Your task to perform on an android device: create a new album in the google photos Image 0: 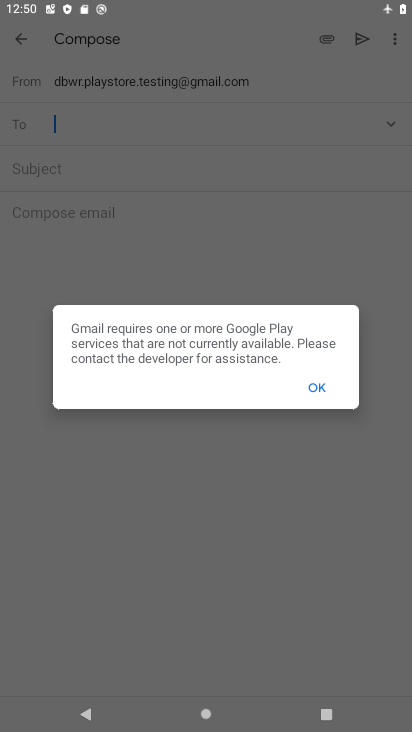
Step 0: press home button
Your task to perform on an android device: create a new album in the google photos Image 1: 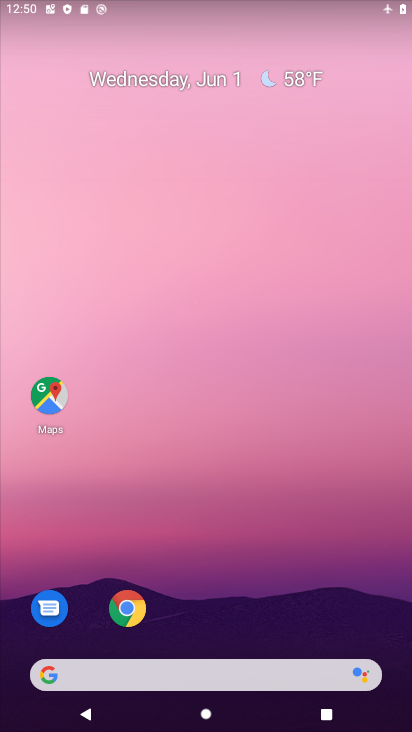
Step 1: drag from (162, 629) to (190, 151)
Your task to perform on an android device: create a new album in the google photos Image 2: 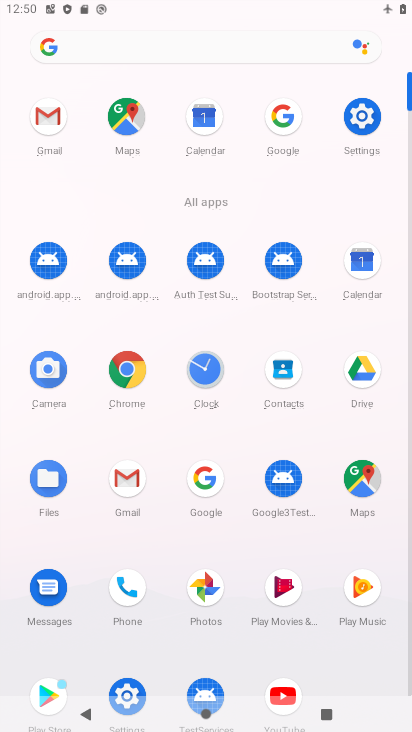
Step 2: click (201, 595)
Your task to perform on an android device: create a new album in the google photos Image 3: 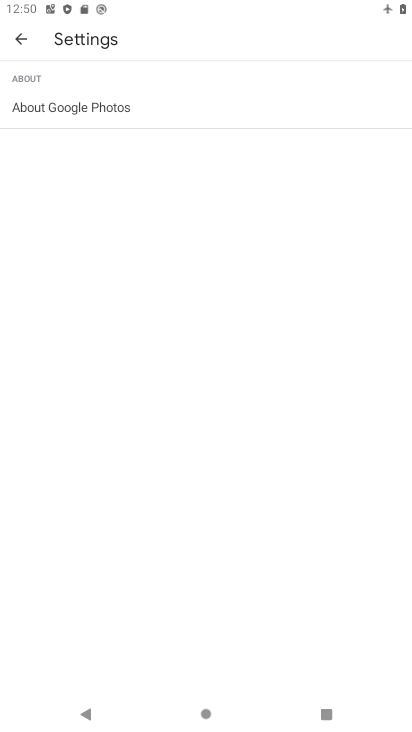
Step 3: click (19, 35)
Your task to perform on an android device: create a new album in the google photos Image 4: 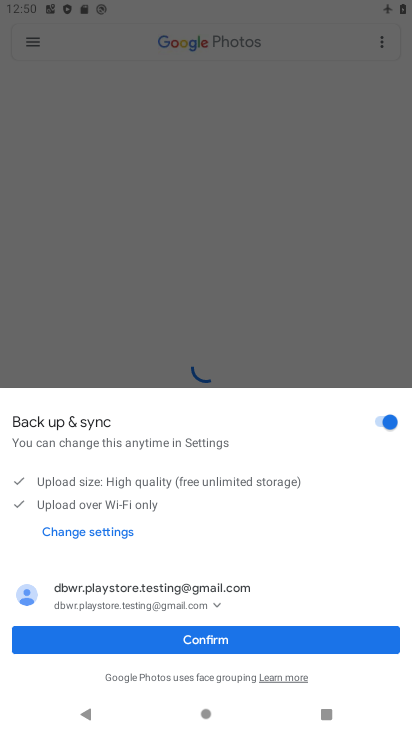
Step 4: click (252, 639)
Your task to perform on an android device: create a new album in the google photos Image 5: 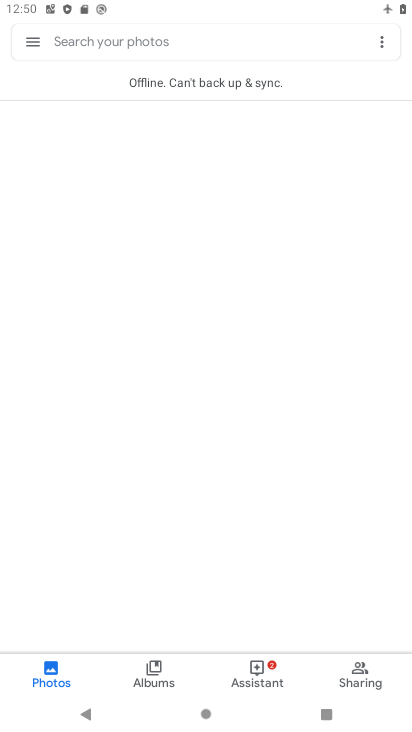
Step 5: drag from (198, 7) to (223, 654)
Your task to perform on an android device: create a new album in the google photos Image 6: 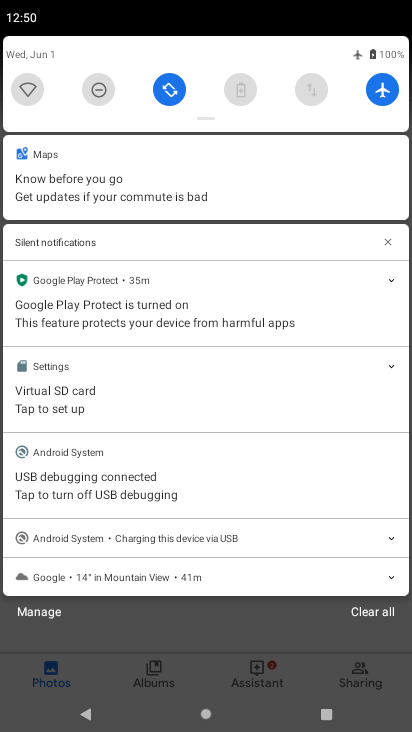
Step 6: click (386, 72)
Your task to perform on an android device: create a new album in the google photos Image 7: 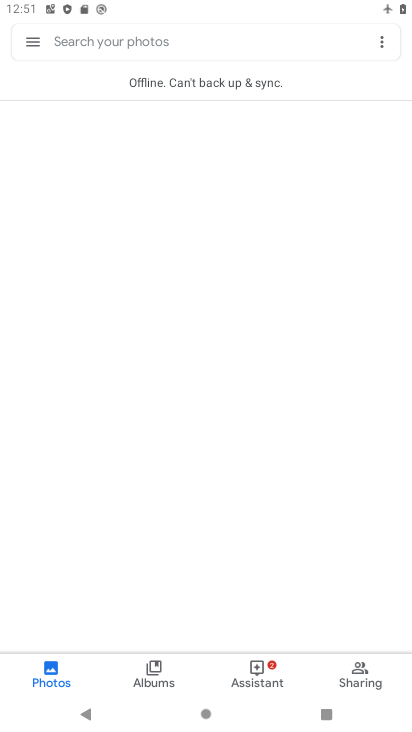
Step 7: drag from (277, 26) to (348, 560)
Your task to perform on an android device: create a new album in the google photos Image 8: 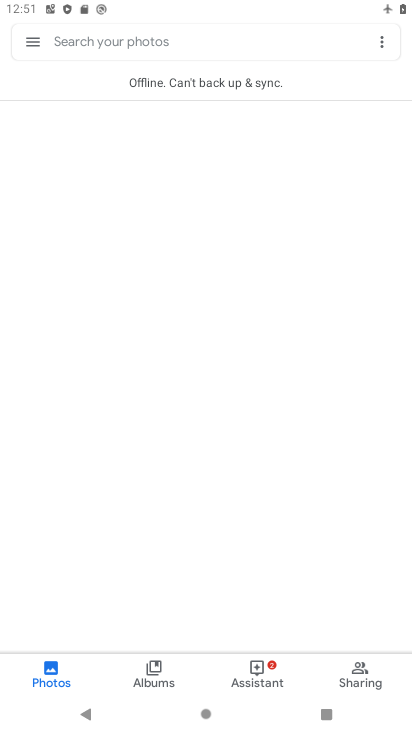
Step 8: drag from (201, 28) to (259, 493)
Your task to perform on an android device: create a new album in the google photos Image 9: 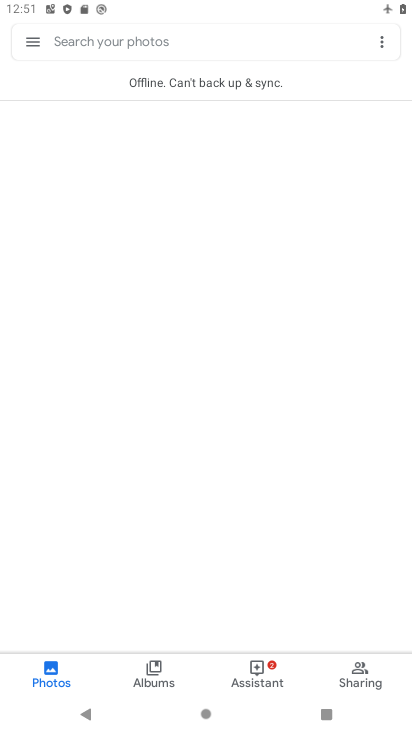
Step 9: drag from (257, 10) to (264, 495)
Your task to perform on an android device: create a new album in the google photos Image 10: 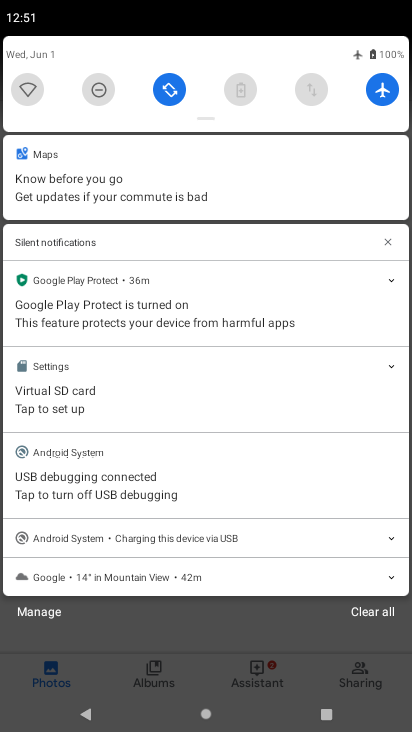
Step 10: click (370, 90)
Your task to perform on an android device: create a new album in the google photos Image 11: 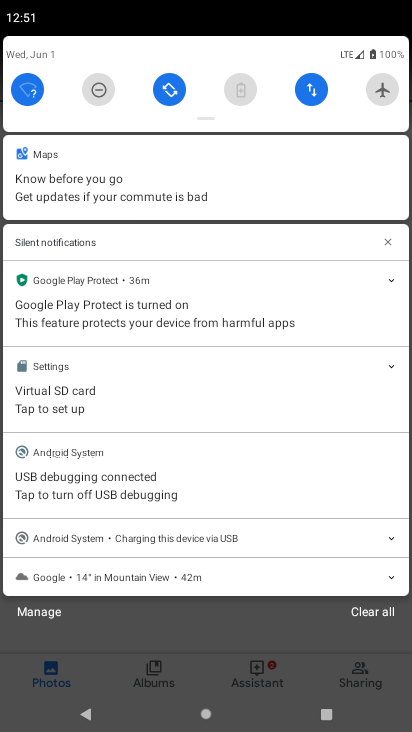
Step 11: drag from (296, 712) to (265, 181)
Your task to perform on an android device: create a new album in the google photos Image 12: 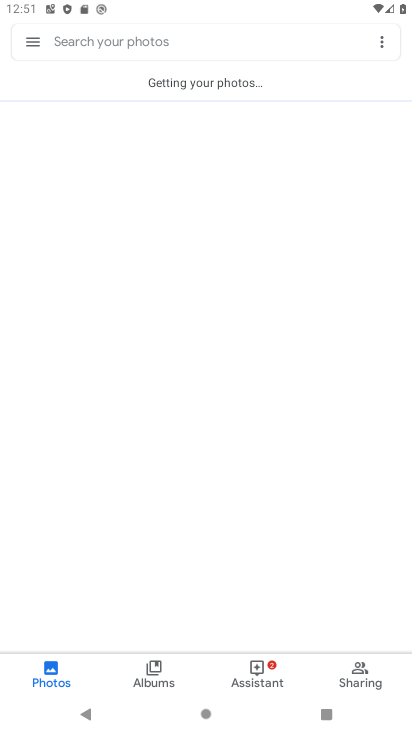
Step 12: click (199, 76)
Your task to perform on an android device: create a new album in the google photos Image 13: 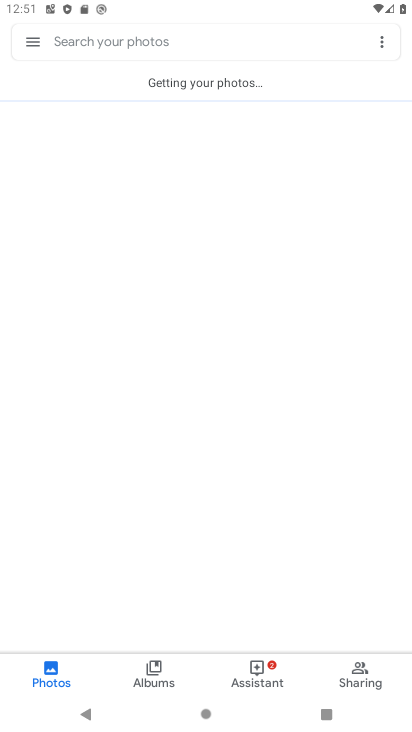
Step 13: click (139, 667)
Your task to perform on an android device: create a new album in the google photos Image 14: 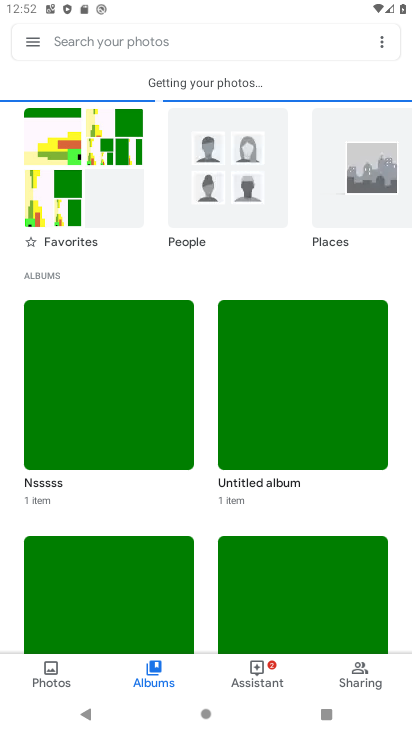
Step 14: click (120, 398)
Your task to perform on an android device: create a new album in the google photos Image 15: 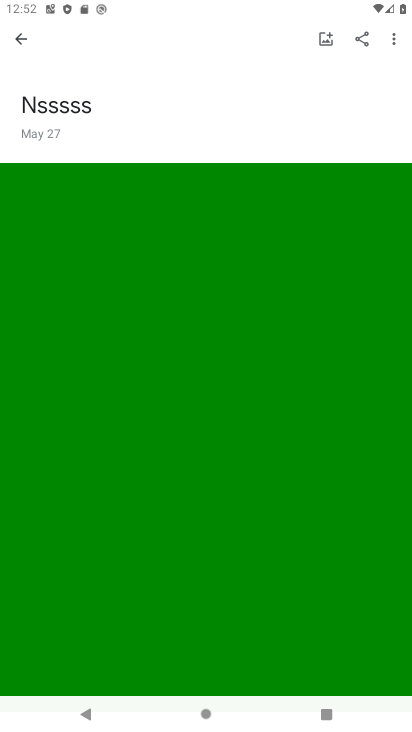
Step 15: click (389, 33)
Your task to perform on an android device: create a new album in the google photos Image 16: 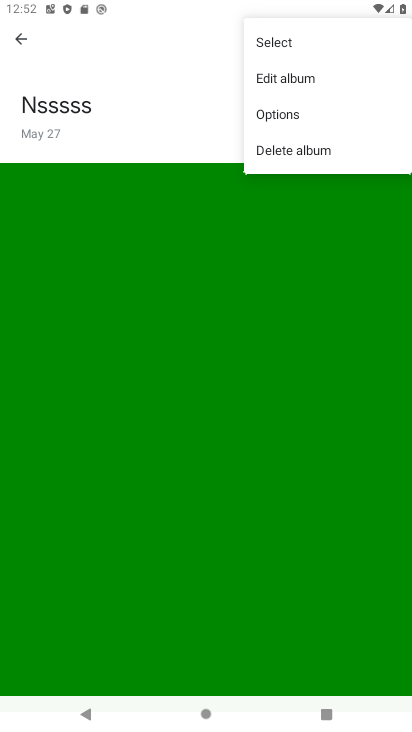
Step 16: click (131, 292)
Your task to perform on an android device: create a new album in the google photos Image 17: 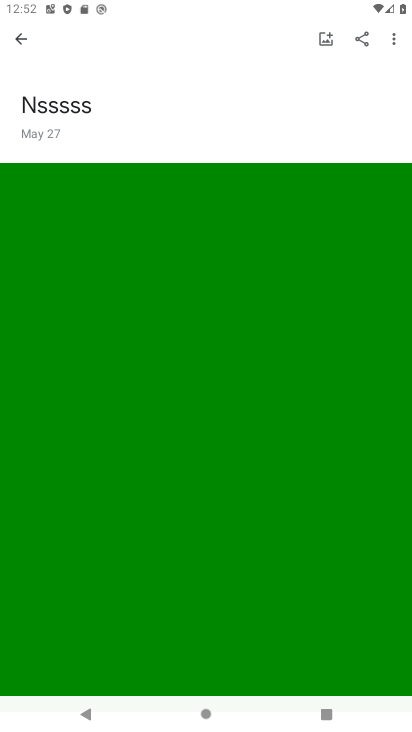
Step 17: click (389, 40)
Your task to perform on an android device: create a new album in the google photos Image 18: 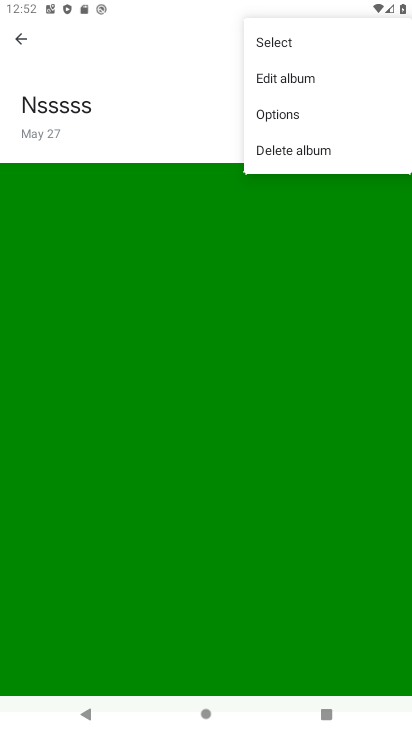
Step 18: click (339, 37)
Your task to perform on an android device: create a new album in the google photos Image 19: 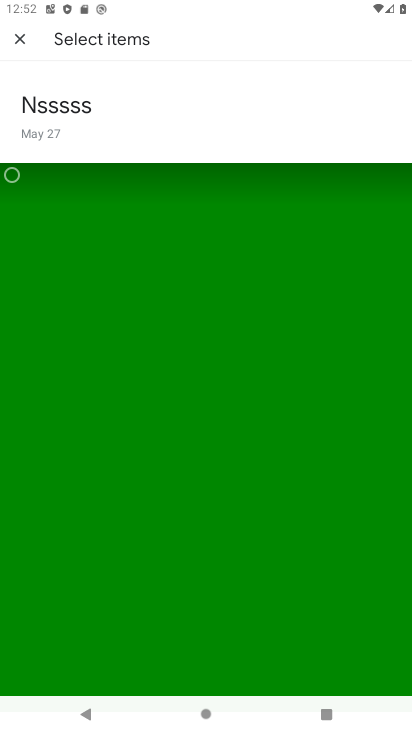
Step 19: click (57, 248)
Your task to perform on an android device: create a new album in the google photos Image 20: 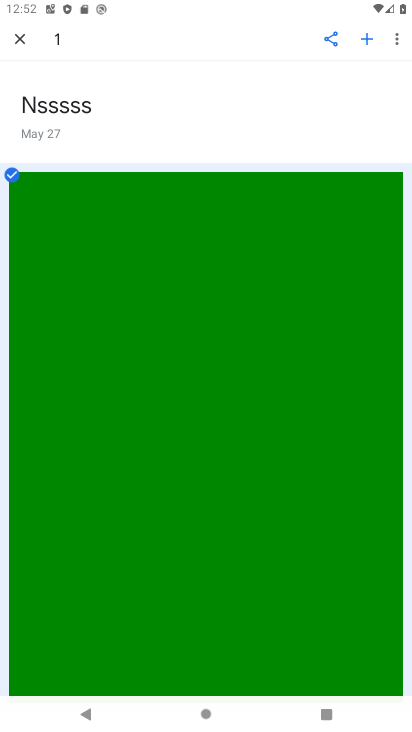
Step 20: click (359, 33)
Your task to perform on an android device: create a new album in the google photos Image 21: 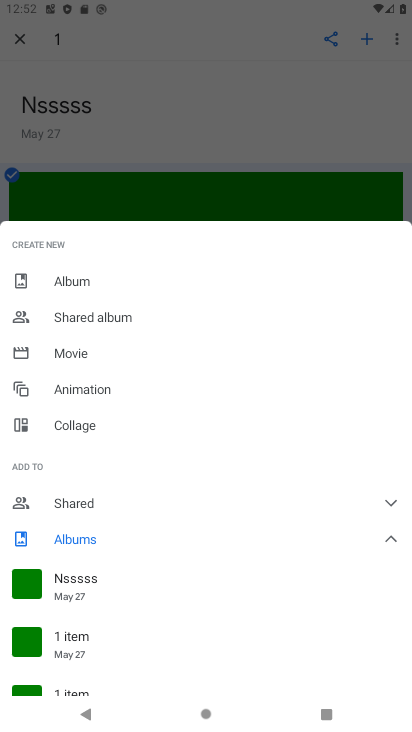
Step 21: click (58, 274)
Your task to perform on an android device: create a new album in the google photos Image 22: 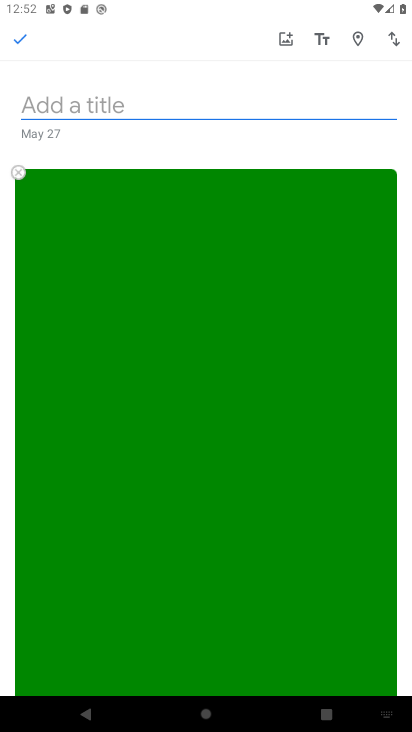
Step 22: type "thtgfdhf"
Your task to perform on an android device: create a new album in the google photos Image 23: 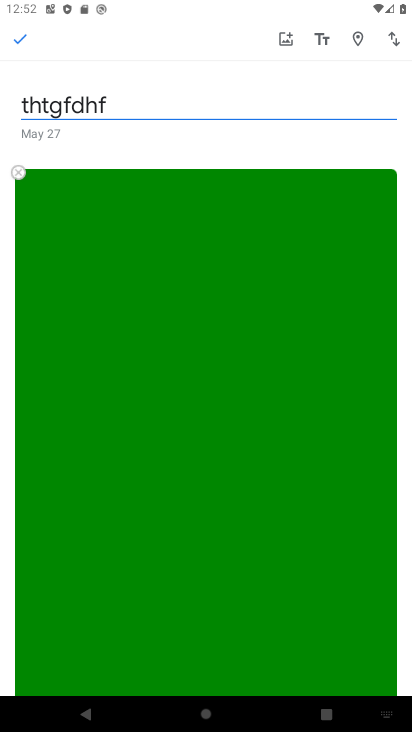
Step 23: click (17, 24)
Your task to perform on an android device: create a new album in the google photos Image 24: 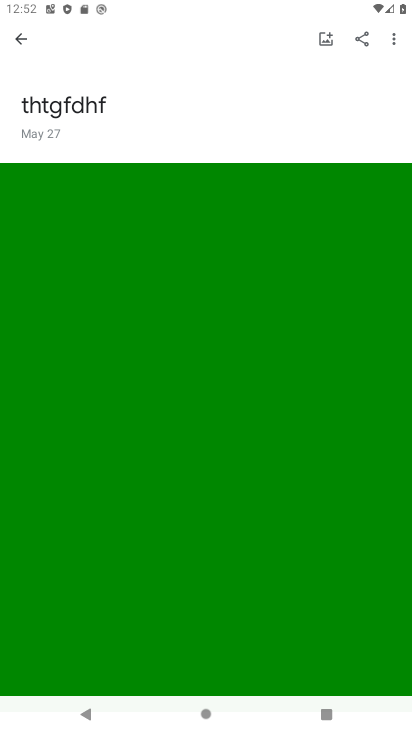
Step 24: task complete